Your task to perform on an android device: check battery use Image 0: 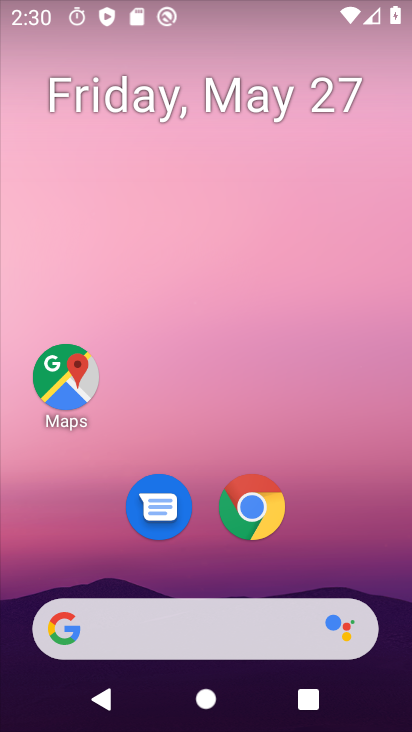
Step 0: drag from (204, 594) to (173, 159)
Your task to perform on an android device: check battery use Image 1: 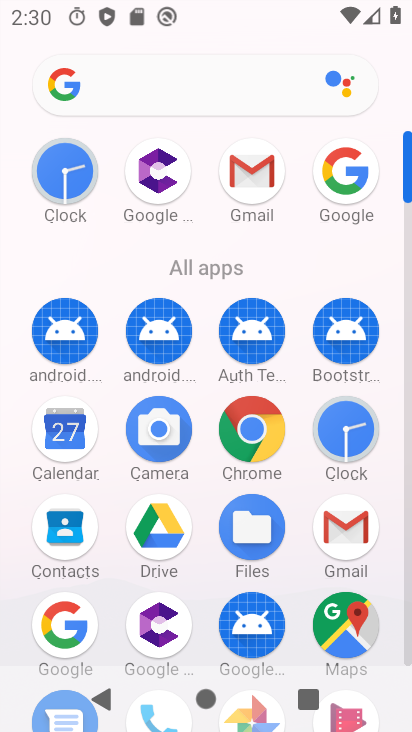
Step 1: drag from (143, 660) to (114, 285)
Your task to perform on an android device: check battery use Image 2: 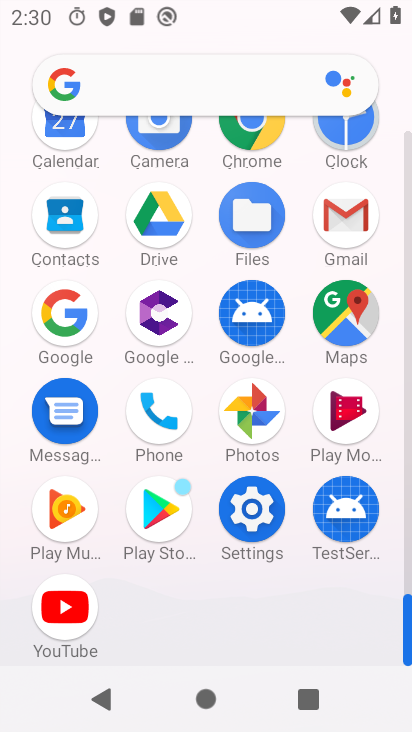
Step 2: click (249, 521)
Your task to perform on an android device: check battery use Image 3: 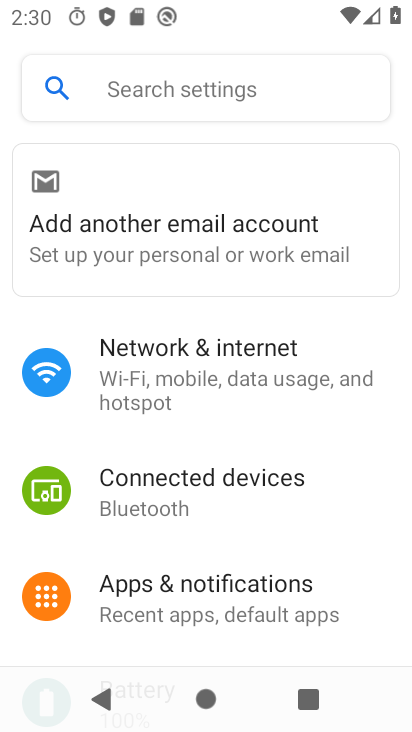
Step 3: drag from (213, 620) to (196, 165)
Your task to perform on an android device: check battery use Image 4: 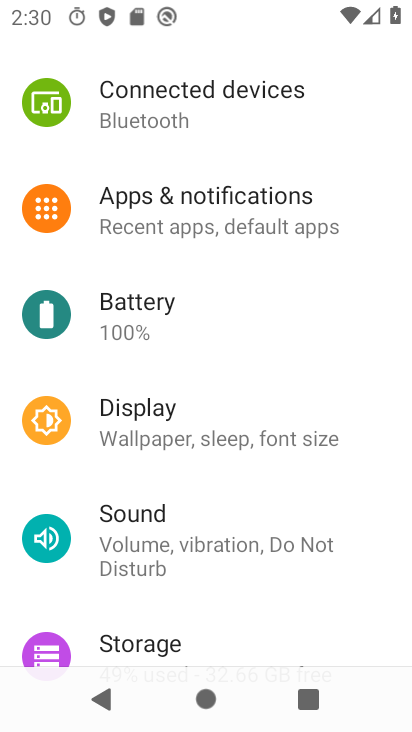
Step 4: click (127, 321)
Your task to perform on an android device: check battery use Image 5: 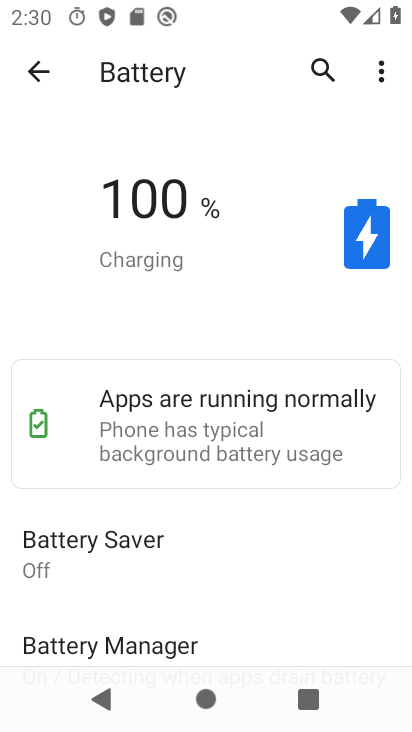
Step 5: drag from (180, 657) to (180, 232)
Your task to perform on an android device: check battery use Image 6: 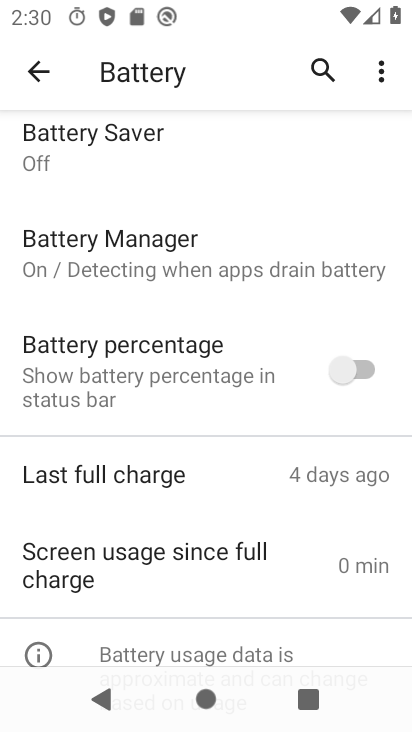
Step 6: click (379, 71)
Your task to perform on an android device: check battery use Image 7: 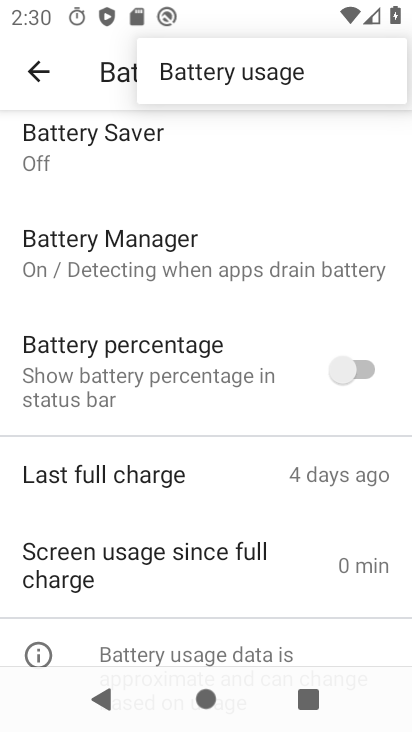
Step 7: click (230, 84)
Your task to perform on an android device: check battery use Image 8: 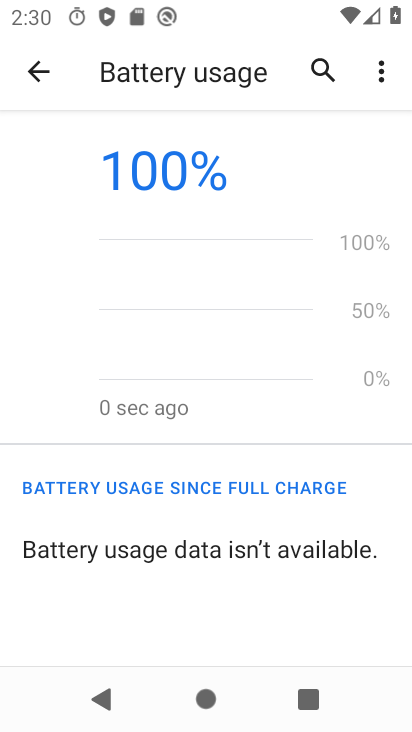
Step 8: task complete